Your task to perform on an android device: empty trash in the gmail app Image 0: 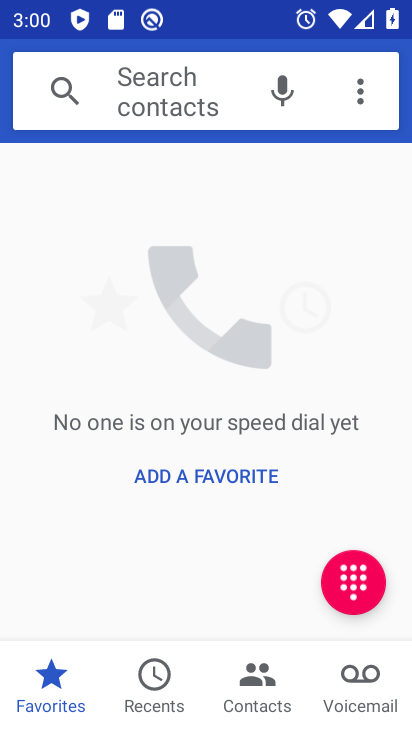
Step 0: press home button
Your task to perform on an android device: empty trash in the gmail app Image 1: 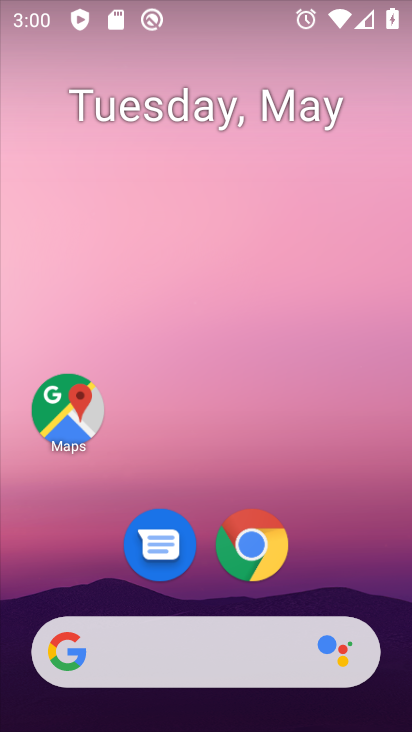
Step 1: drag from (214, 660) to (290, 12)
Your task to perform on an android device: empty trash in the gmail app Image 2: 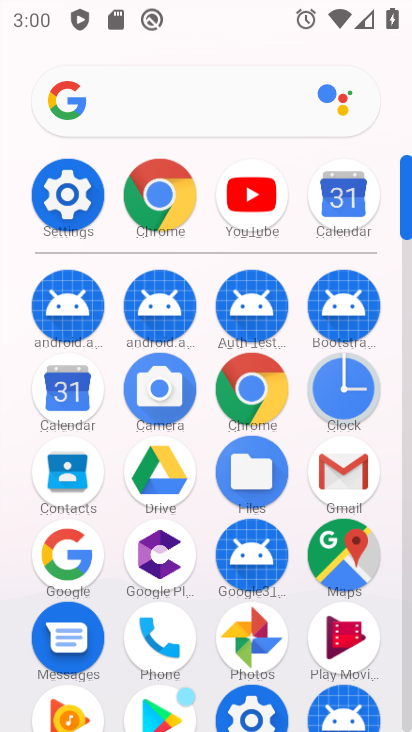
Step 2: click (321, 476)
Your task to perform on an android device: empty trash in the gmail app Image 3: 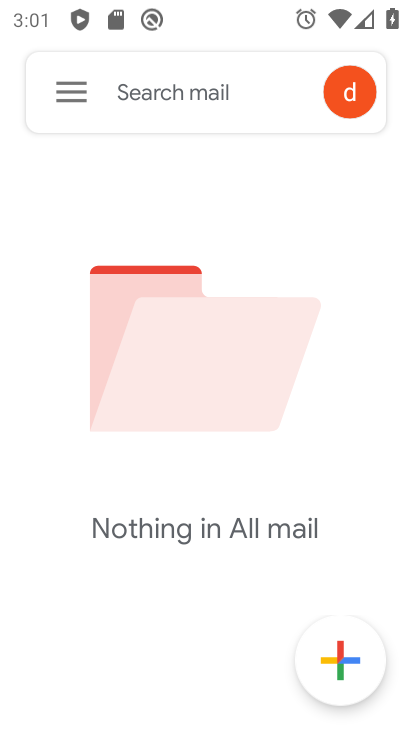
Step 3: click (53, 87)
Your task to perform on an android device: empty trash in the gmail app Image 4: 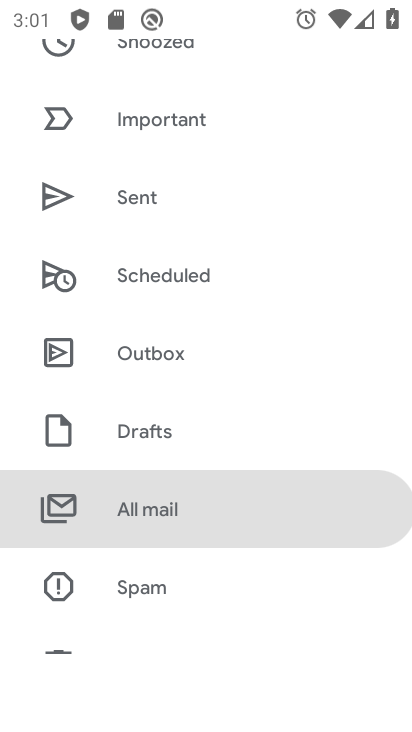
Step 4: drag from (170, 582) to (156, 160)
Your task to perform on an android device: empty trash in the gmail app Image 5: 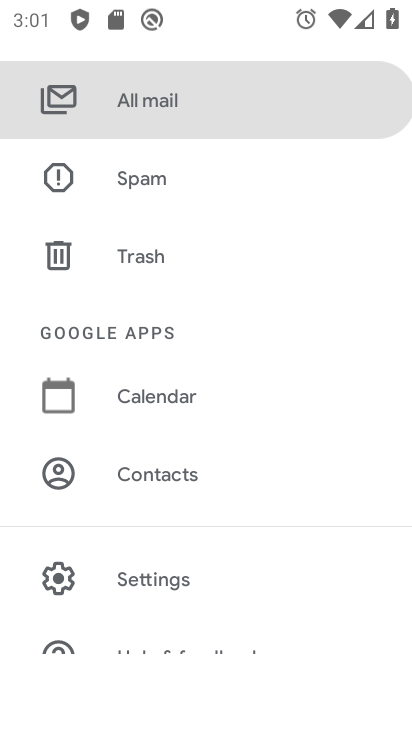
Step 5: click (133, 262)
Your task to perform on an android device: empty trash in the gmail app Image 6: 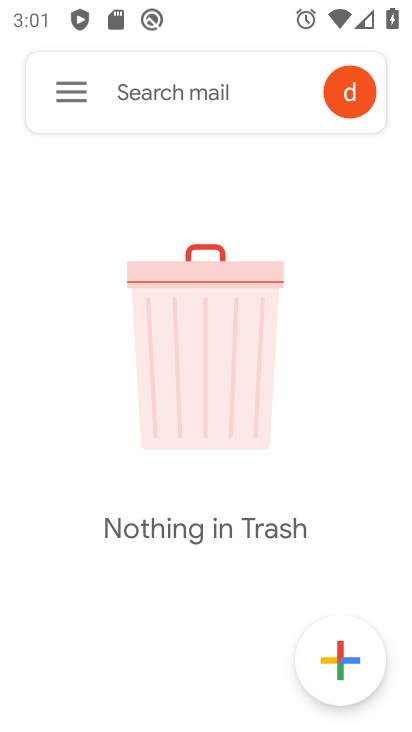
Step 6: task complete